Your task to perform on an android device: Go to Yahoo.com Image 0: 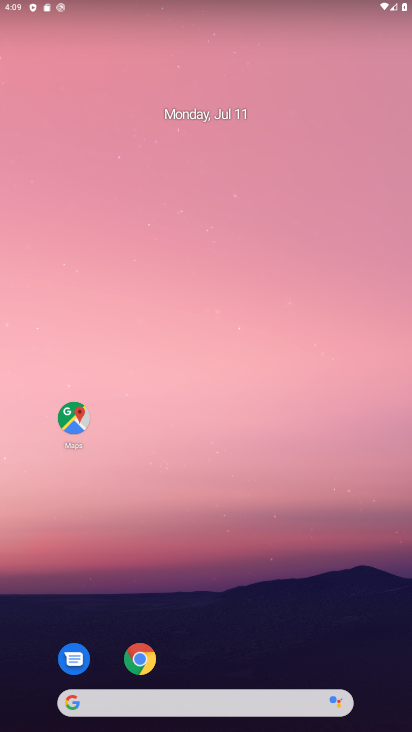
Step 0: click (141, 671)
Your task to perform on an android device: Go to Yahoo.com Image 1: 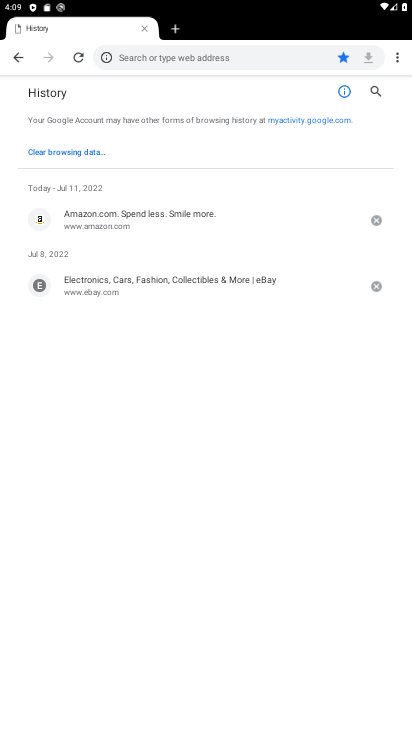
Step 1: click (179, 25)
Your task to perform on an android device: Go to Yahoo.com Image 2: 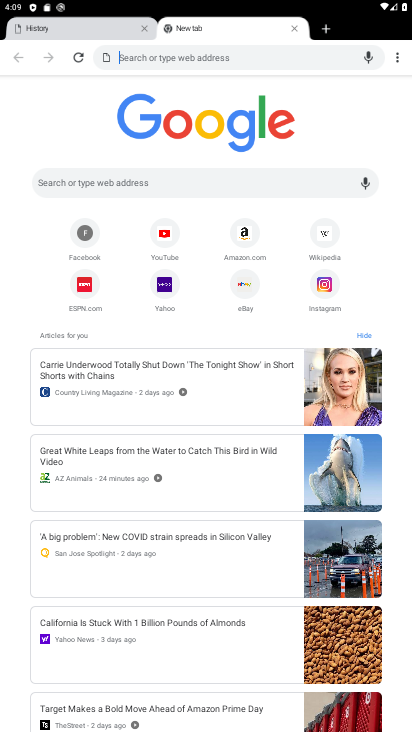
Step 2: click (157, 277)
Your task to perform on an android device: Go to Yahoo.com Image 3: 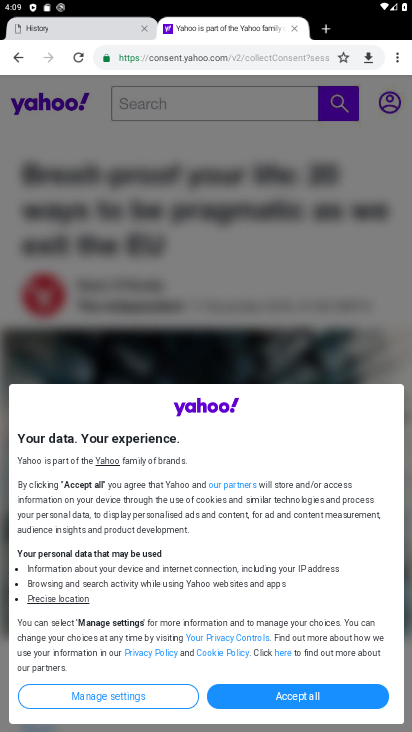
Step 3: task complete